Your task to perform on an android device: Do I have any events tomorrow? Image 0: 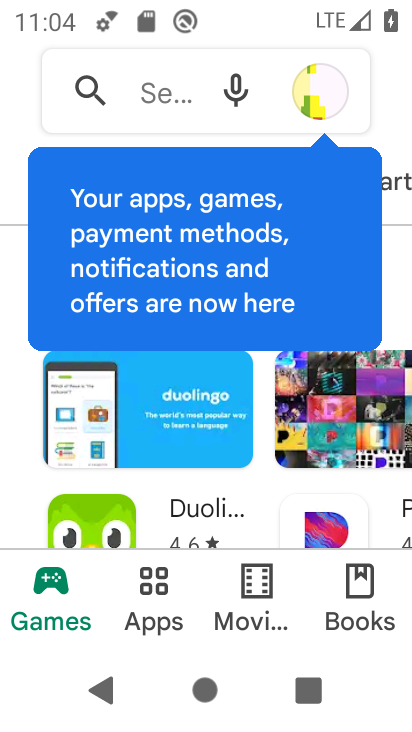
Step 0: press home button
Your task to perform on an android device: Do I have any events tomorrow? Image 1: 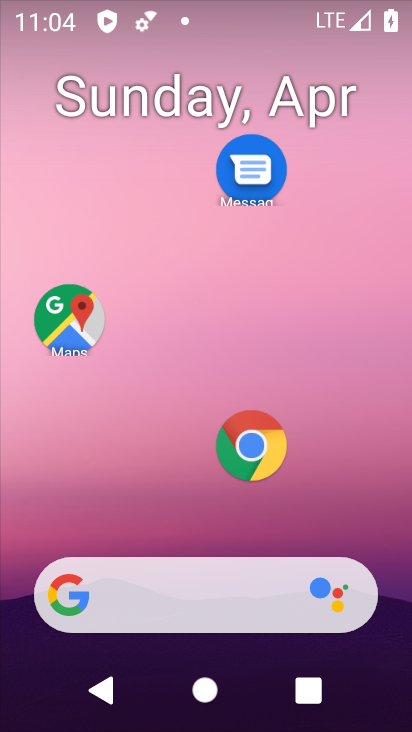
Step 1: drag from (115, 604) to (299, 49)
Your task to perform on an android device: Do I have any events tomorrow? Image 2: 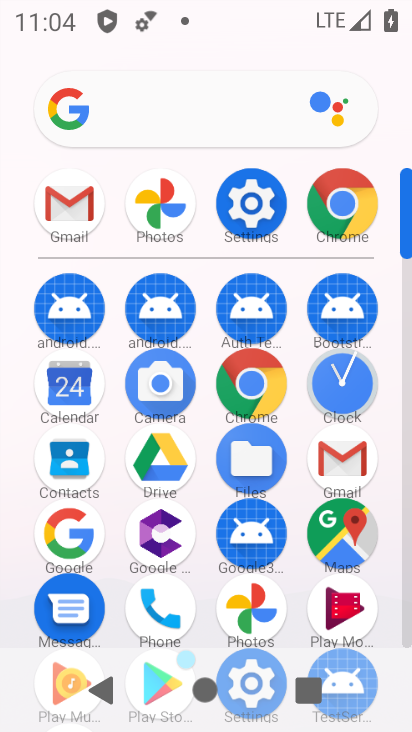
Step 2: click (70, 398)
Your task to perform on an android device: Do I have any events tomorrow? Image 3: 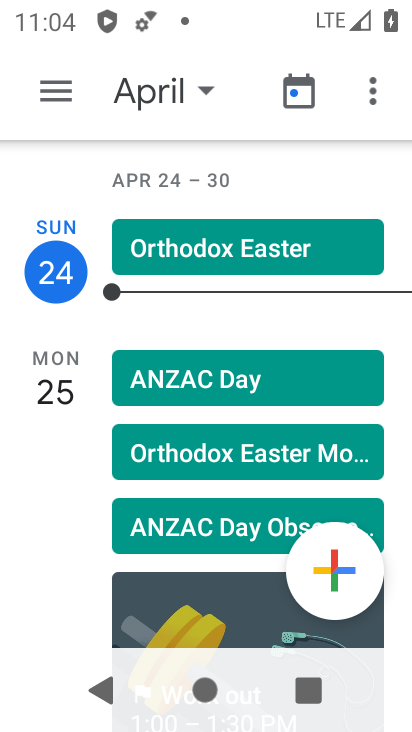
Step 3: click (125, 96)
Your task to perform on an android device: Do I have any events tomorrow? Image 4: 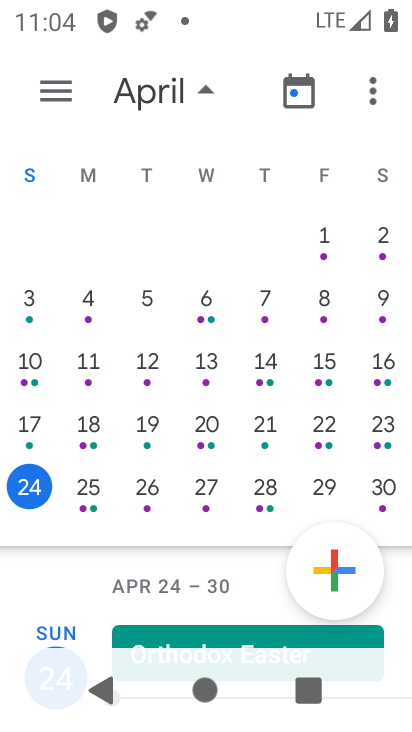
Step 4: click (100, 486)
Your task to perform on an android device: Do I have any events tomorrow? Image 5: 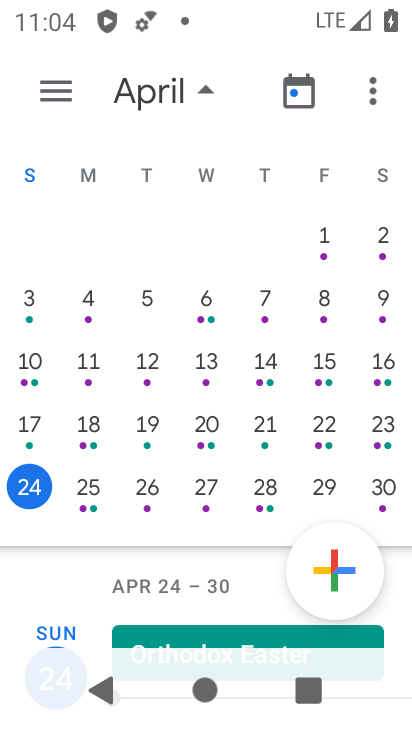
Step 5: click (90, 493)
Your task to perform on an android device: Do I have any events tomorrow? Image 6: 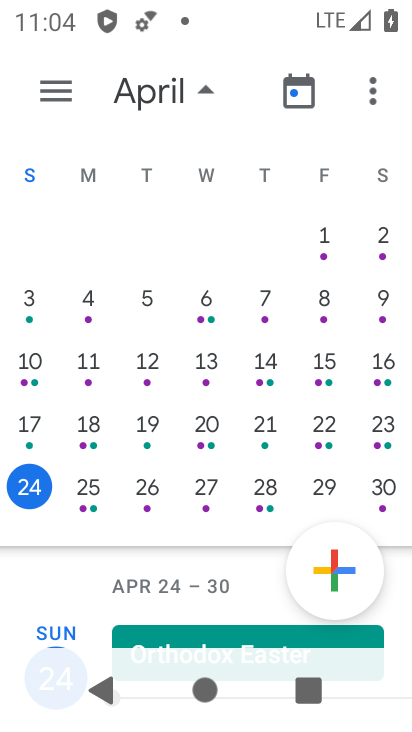
Step 6: click (89, 497)
Your task to perform on an android device: Do I have any events tomorrow? Image 7: 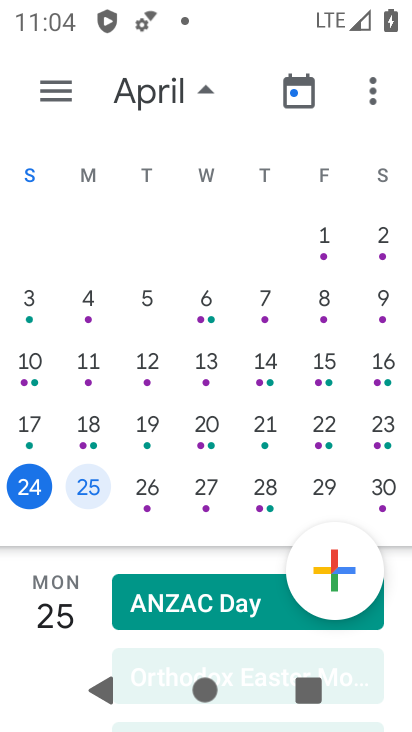
Step 7: click (41, 98)
Your task to perform on an android device: Do I have any events tomorrow? Image 8: 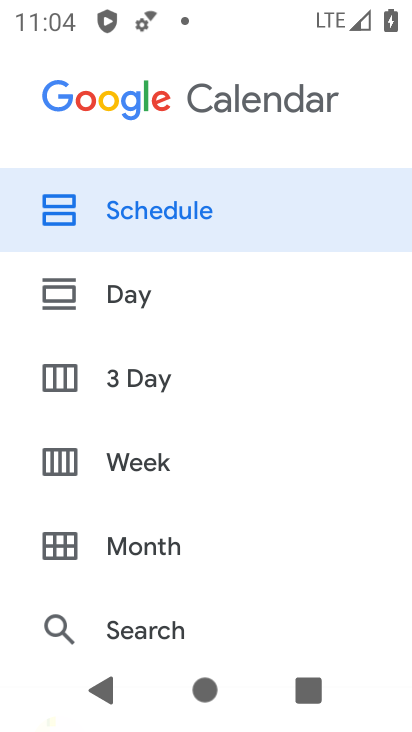
Step 8: click (134, 219)
Your task to perform on an android device: Do I have any events tomorrow? Image 9: 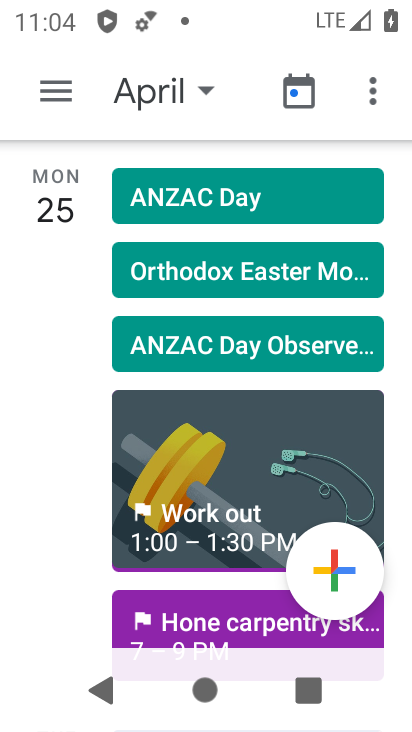
Step 9: drag from (306, 234) to (357, 150)
Your task to perform on an android device: Do I have any events tomorrow? Image 10: 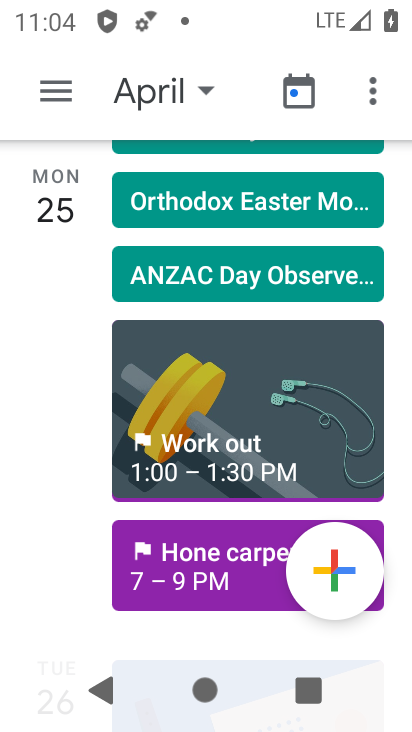
Step 10: click (209, 550)
Your task to perform on an android device: Do I have any events tomorrow? Image 11: 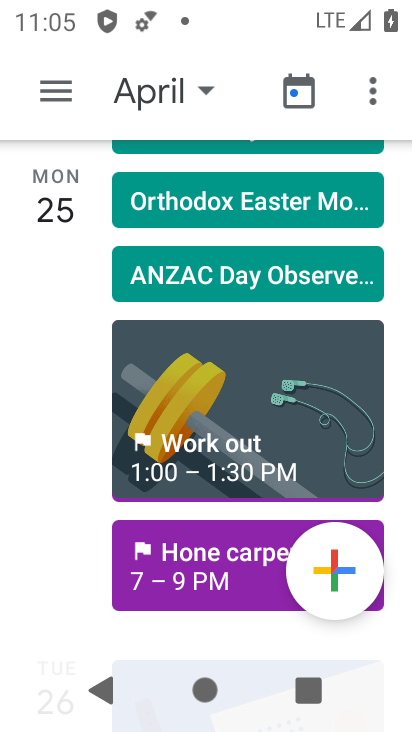
Step 11: click (244, 552)
Your task to perform on an android device: Do I have any events tomorrow? Image 12: 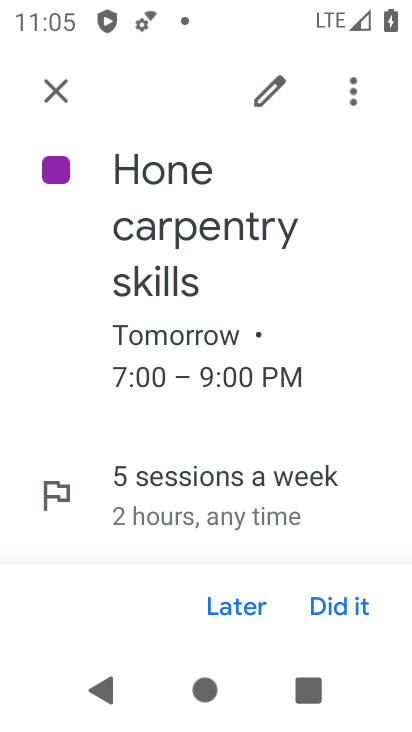
Step 12: task complete